Your task to perform on an android device: Open settings on Google Maps Image 0: 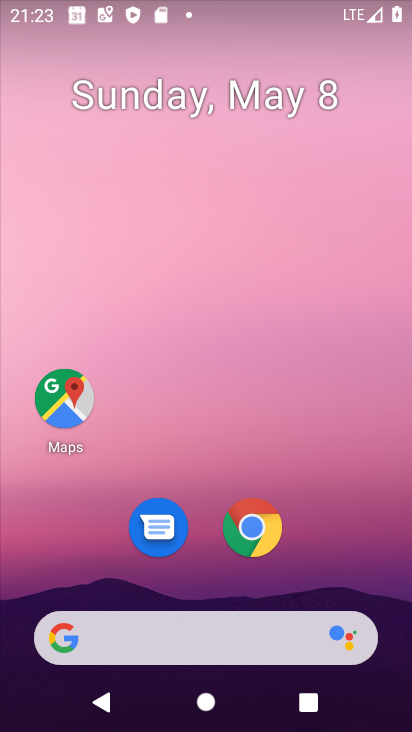
Step 0: click (60, 401)
Your task to perform on an android device: Open settings on Google Maps Image 1: 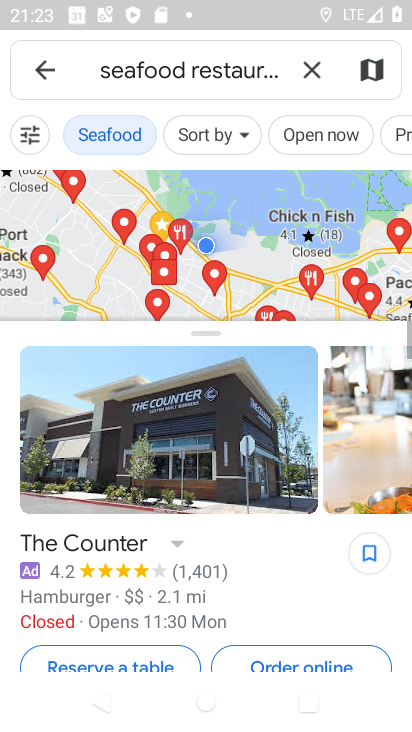
Step 1: click (307, 66)
Your task to perform on an android device: Open settings on Google Maps Image 2: 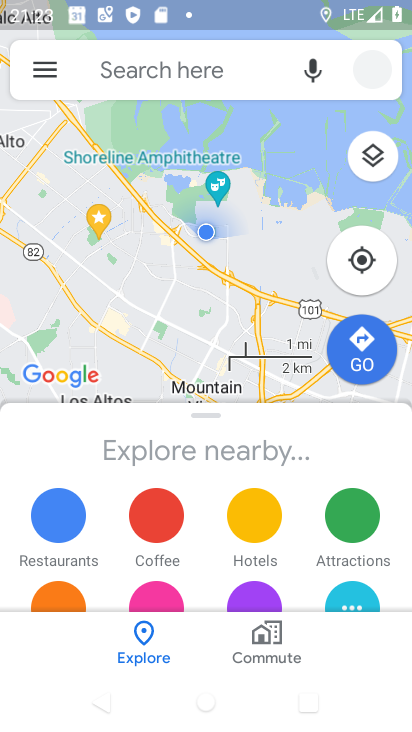
Step 2: click (38, 69)
Your task to perform on an android device: Open settings on Google Maps Image 3: 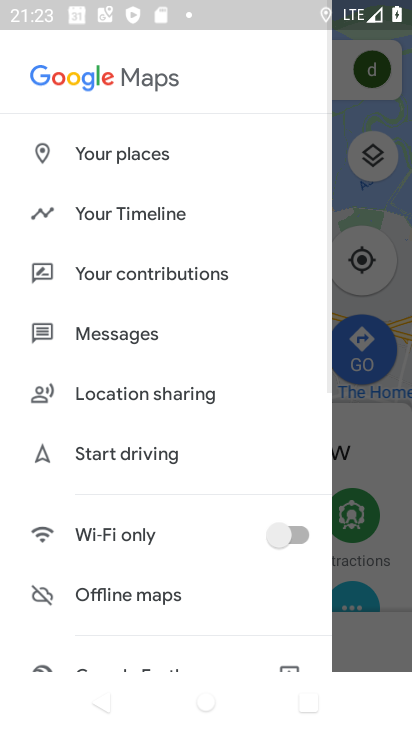
Step 3: drag from (151, 552) to (193, 92)
Your task to perform on an android device: Open settings on Google Maps Image 4: 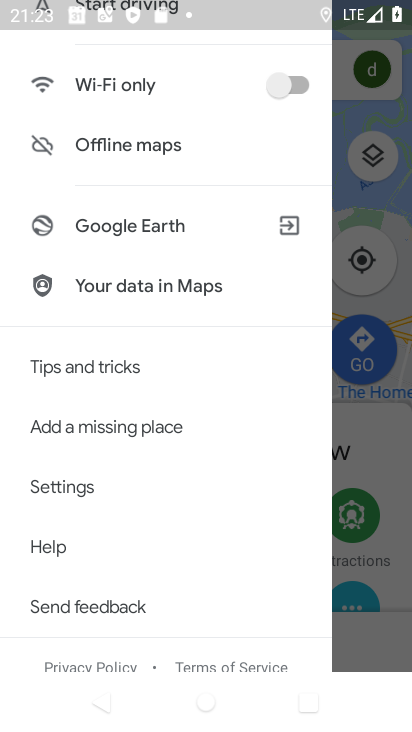
Step 4: click (81, 482)
Your task to perform on an android device: Open settings on Google Maps Image 5: 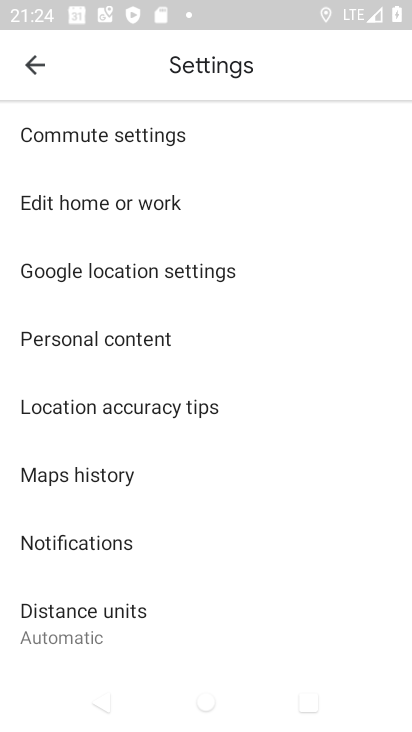
Step 5: task complete